Your task to perform on an android device: Open Yahoo.com Image 0: 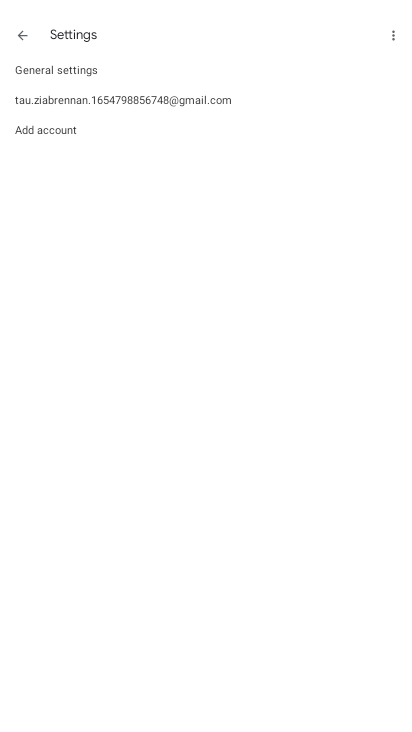
Step 0: press home button
Your task to perform on an android device: Open Yahoo.com Image 1: 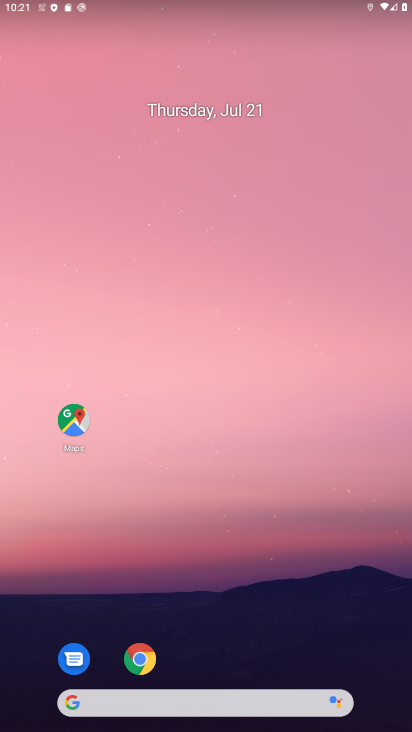
Step 1: click (149, 664)
Your task to perform on an android device: Open Yahoo.com Image 2: 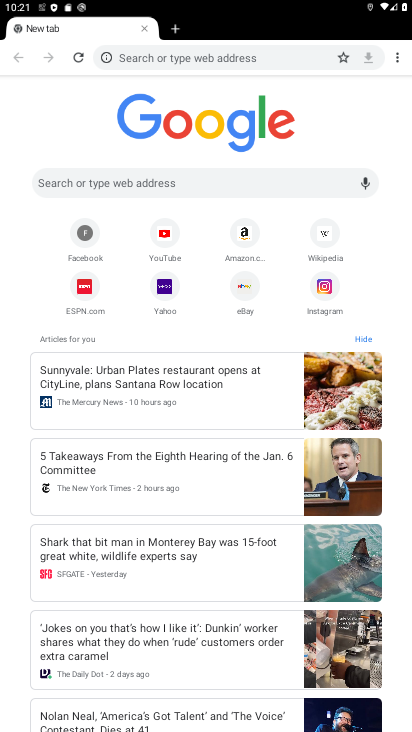
Step 2: click (172, 296)
Your task to perform on an android device: Open Yahoo.com Image 3: 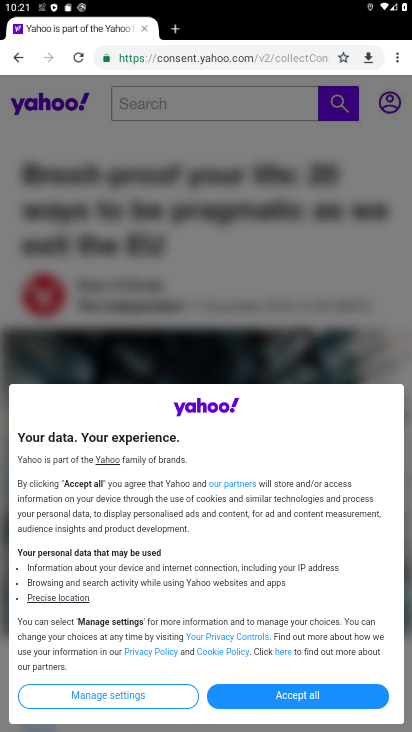
Step 3: click (295, 685)
Your task to perform on an android device: Open Yahoo.com Image 4: 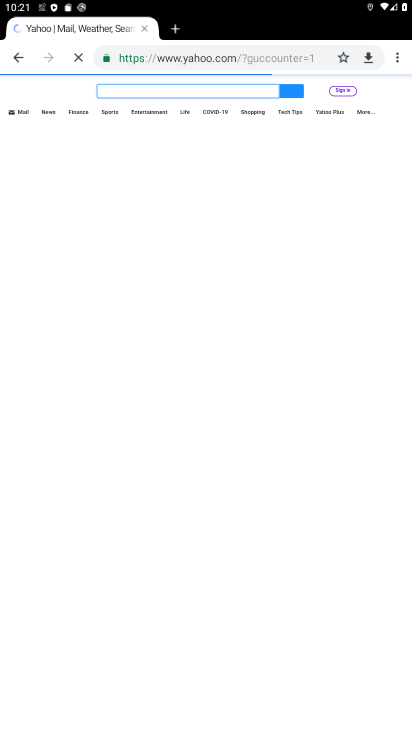
Step 4: click (290, 692)
Your task to perform on an android device: Open Yahoo.com Image 5: 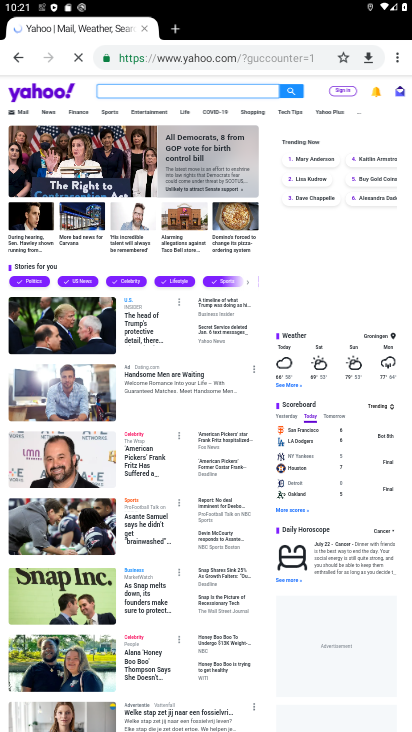
Step 5: task complete